Your task to perform on an android device: Search for sushi restaurants on Maps Image 0: 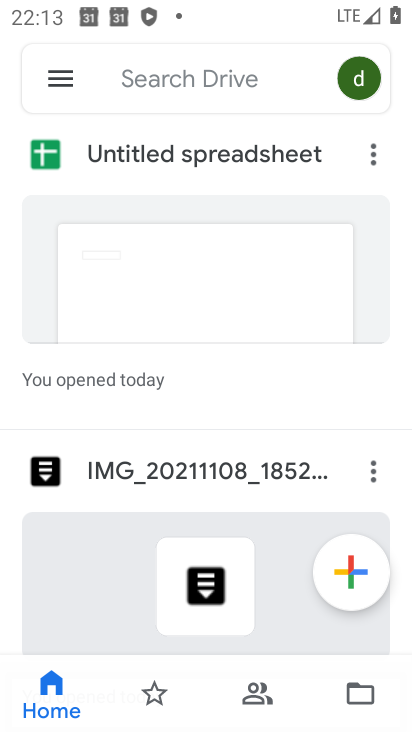
Step 0: press home button
Your task to perform on an android device: Search for sushi restaurants on Maps Image 1: 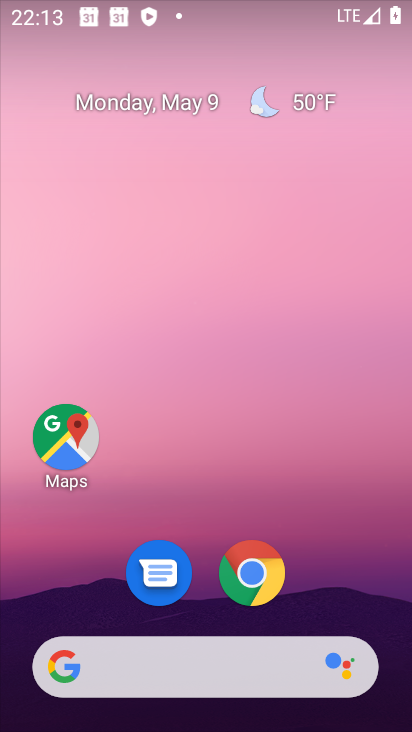
Step 1: click (60, 448)
Your task to perform on an android device: Search for sushi restaurants on Maps Image 2: 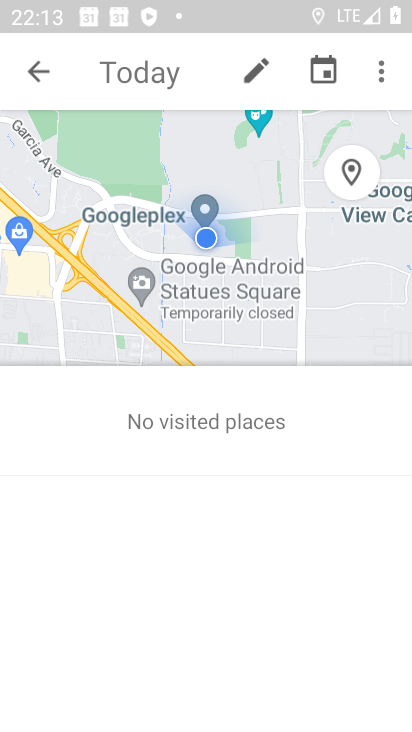
Step 2: click (40, 62)
Your task to perform on an android device: Search for sushi restaurants on Maps Image 3: 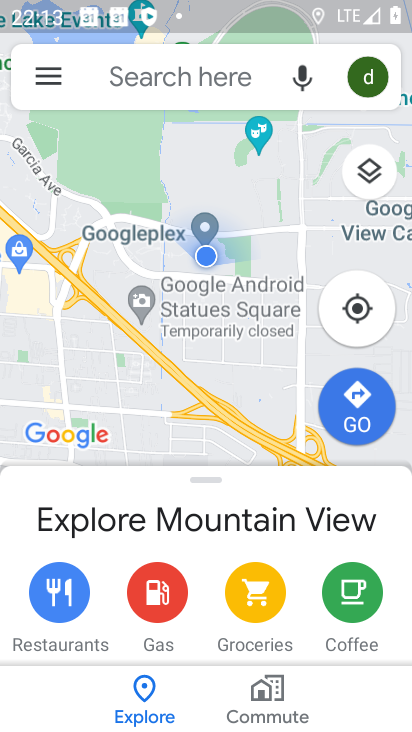
Step 3: click (189, 83)
Your task to perform on an android device: Search for sushi restaurants on Maps Image 4: 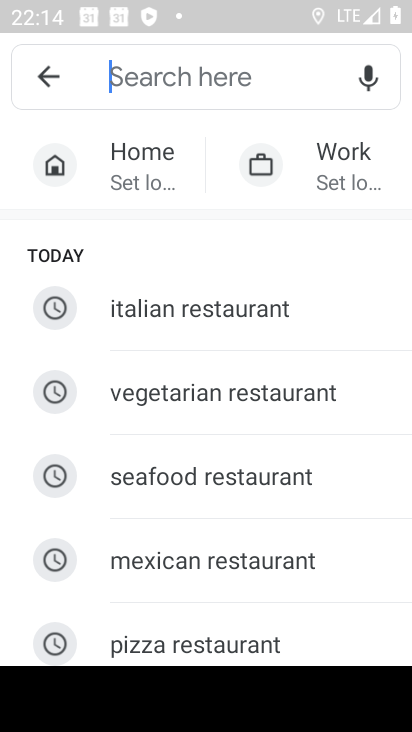
Step 4: type "sushi restaurants"
Your task to perform on an android device: Search for sushi restaurants on Maps Image 5: 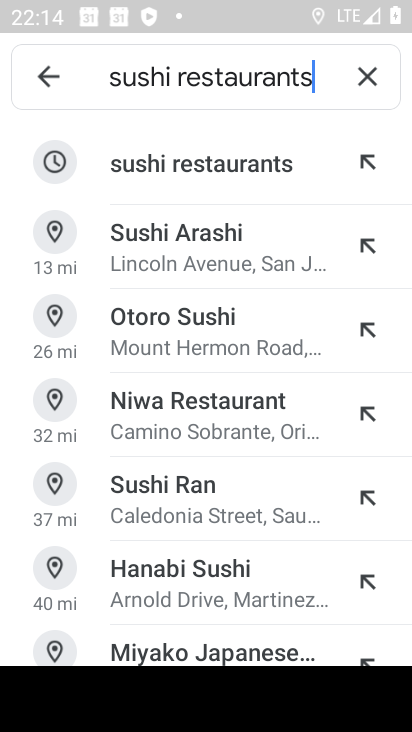
Step 5: click (234, 172)
Your task to perform on an android device: Search for sushi restaurants on Maps Image 6: 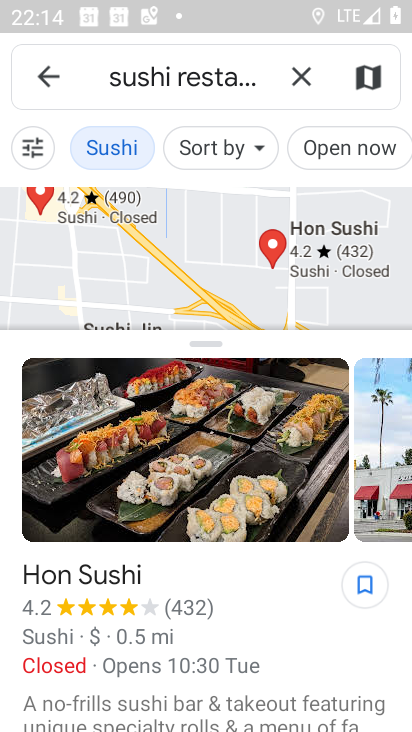
Step 6: task complete